Your task to perform on an android device: show emergency info Image 0: 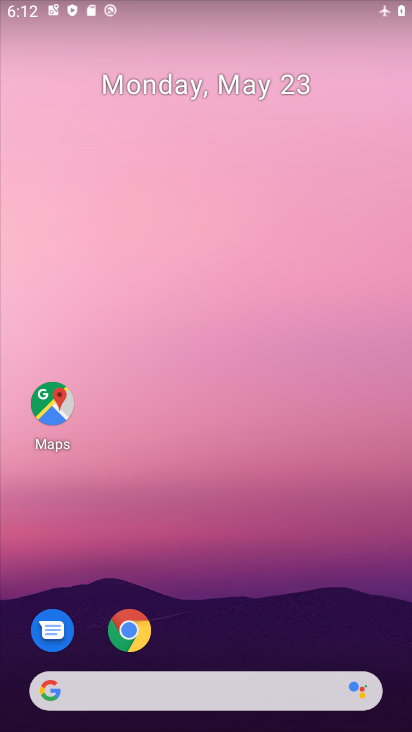
Step 0: drag from (222, 613) to (237, 63)
Your task to perform on an android device: show emergency info Image 1: 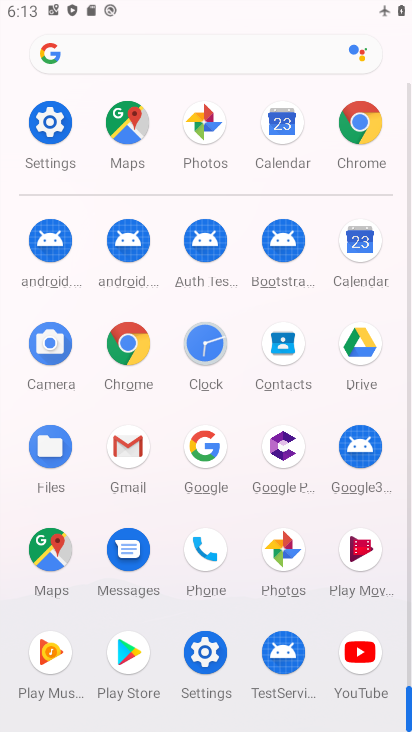
Step 1: drag from (2, 537) to (13, 209)
Your task to perform on an android device: show emergency info Image 2: 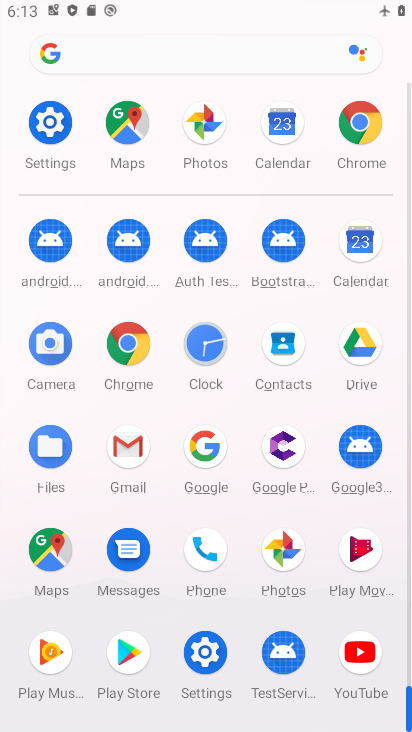
Step 2: click (198, 646)
Your task to perform on an android device: show emergency info Image 3: 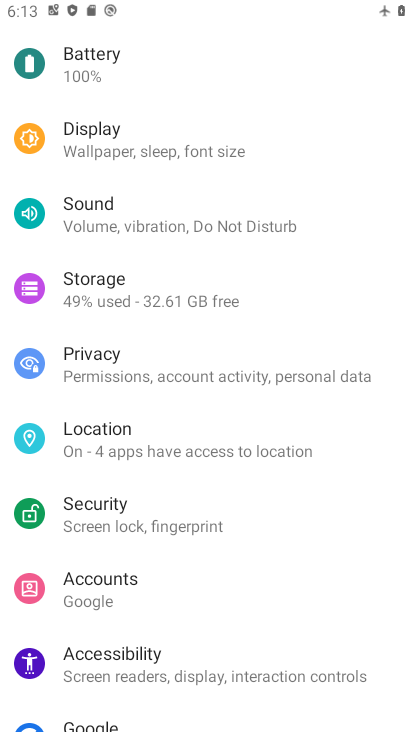
Step 3: drag from (220, 589) to (236, 121)
Your task to perform on an android device: show emergency info Image 4: 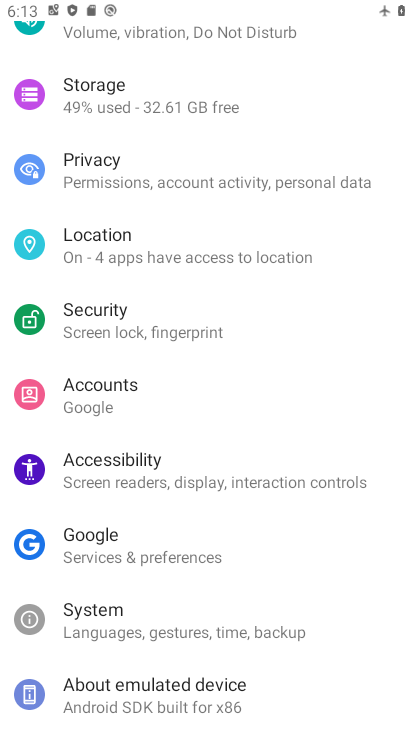
Step 4: drag from (238, 610) to (237, 122)
Your task to perform on an android device: show emergency info Image 5: 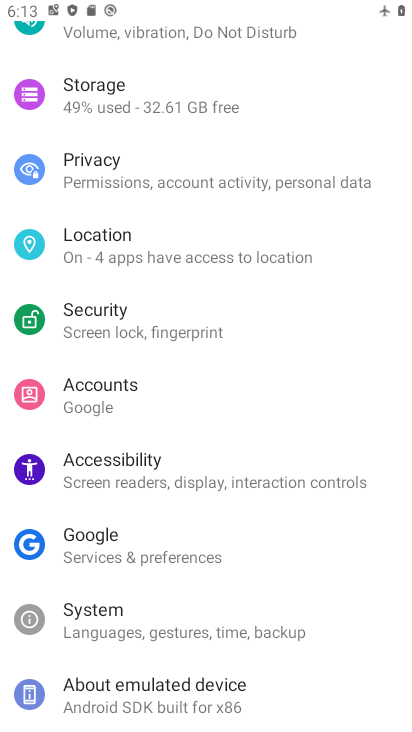
Step 5: click (235, 690)
Your task to perform on an android device: show emergency info Image 6: 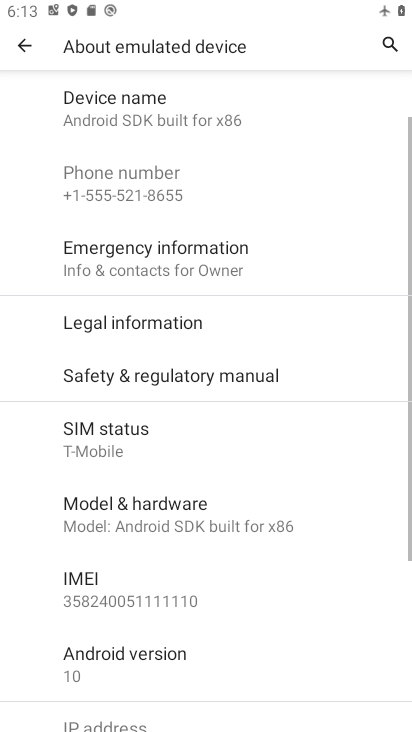
Step 6: click (258, 242)
Your task to perform on an android device: show emergency info Image 7: 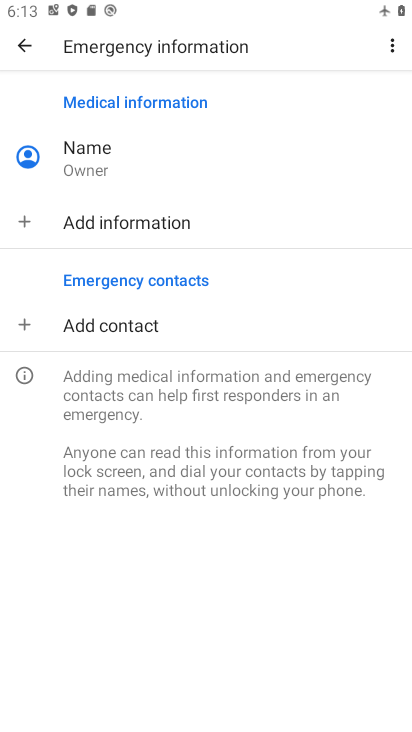
Step 7: task complete